Your task to perform on an android device: Open a new incognito tab in Chrome Image 0: 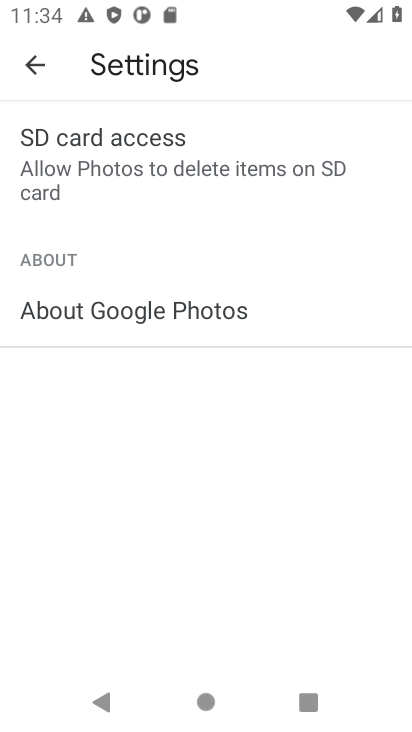
Step 0: press home button
Your task to perform on an android device: Open a new incognito tab in Chrome Image 1: 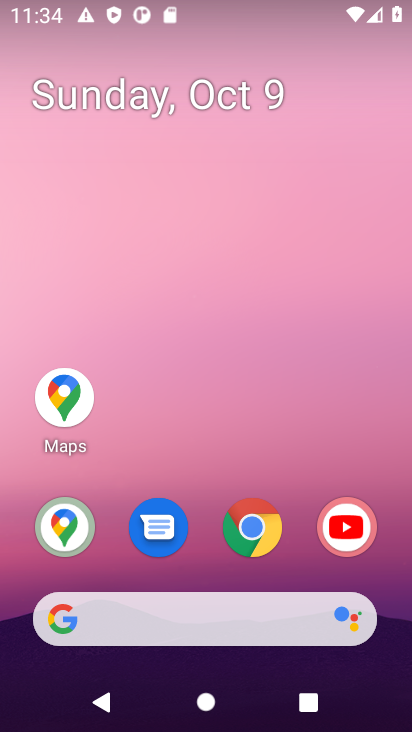
Step 1: click (247, 545)
Your task to perform on an android device: Open a new incognito tab in Chrome Image 2: 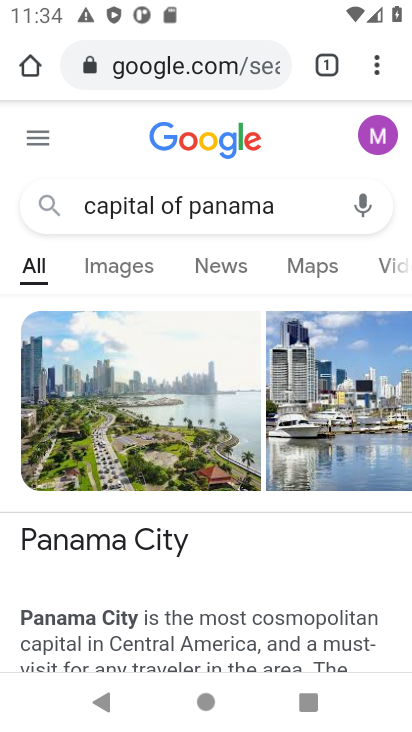
Step 2: click (204, 71)
Your task to perform on an android device: Open a new incognito tab in Chrome Image 3: 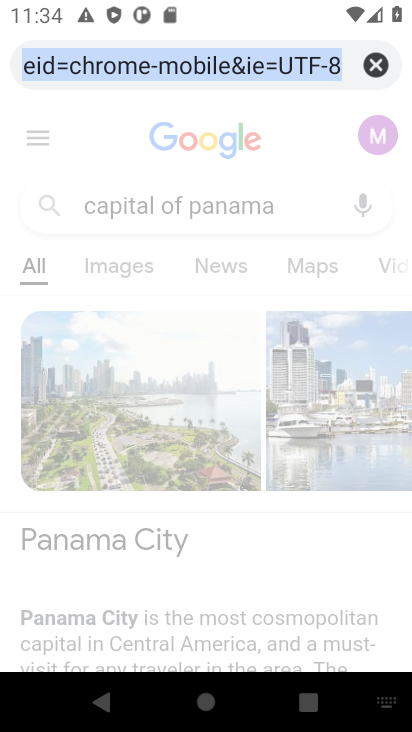
Step 3: click (314, 191)
Your task to perform on an android device: Open a new incognito tab in Chrome Image 4: 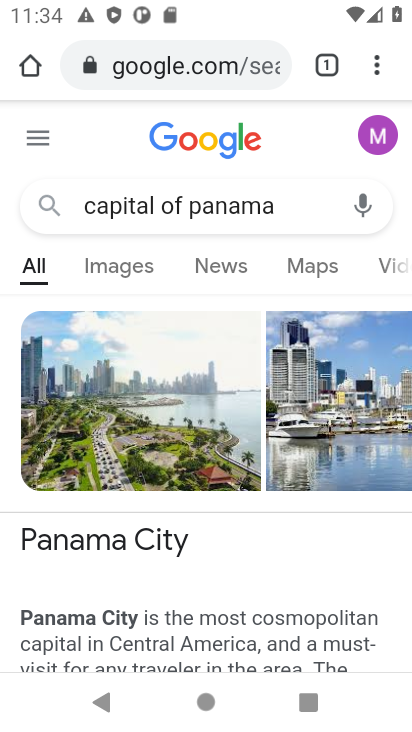
Step 4: click (377, 62)
Your task to perform on an android device: Open a new incognito tab in Chrome Image 5: 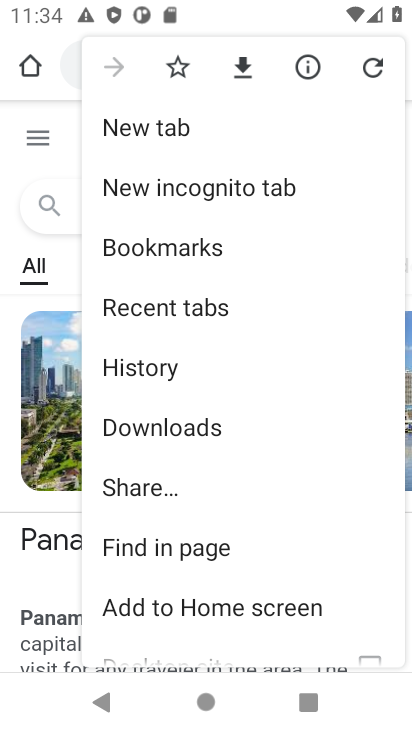
Step 5: click (206, 196)
Your task to perform on an android device: Open a new incognito tab in Chrome Image 6: 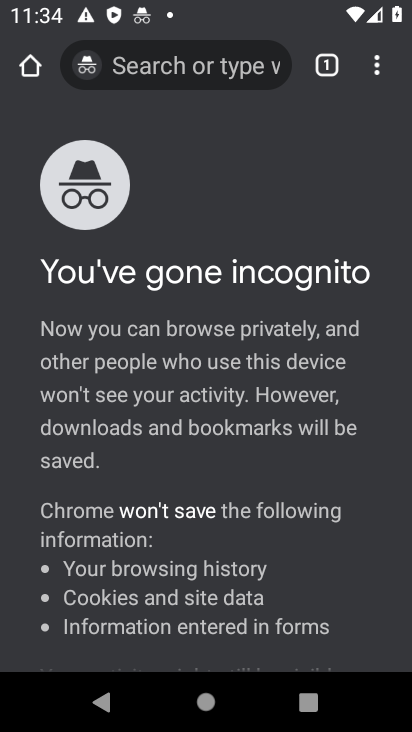
Step 6: task complete